Your task to perform on an android device: Search for "logitech g933" on target, select the first entry, add it to the cart, then select checkout. Image 0: 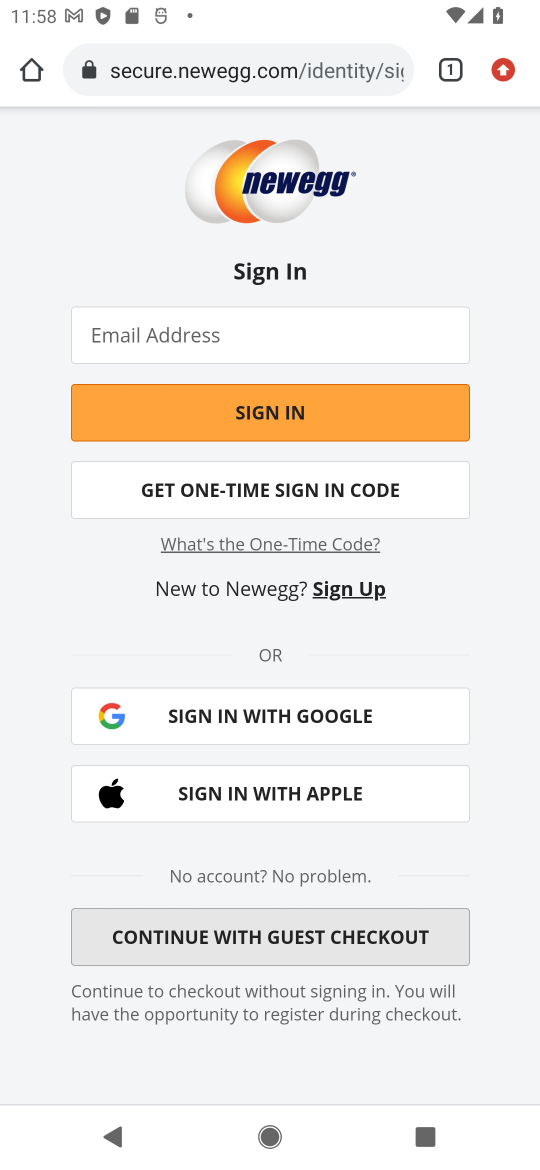
Step 0: click (177, 73)
Your task to perform on an android device: Search for "logitech g933" on target, select the first entry, add it to the cart, then select checkout. Image 1: 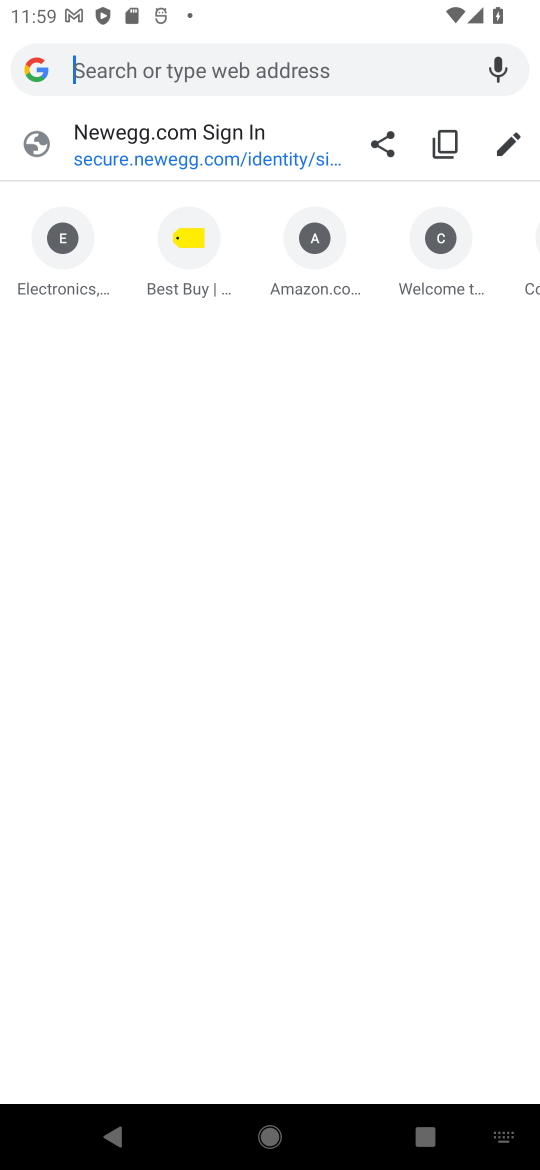
Step 1: type "target.com"
Your task to perform on an android device: Search for "logitech g933" on target, select the first entry, add it to the cart, then select checkout. Image 2: 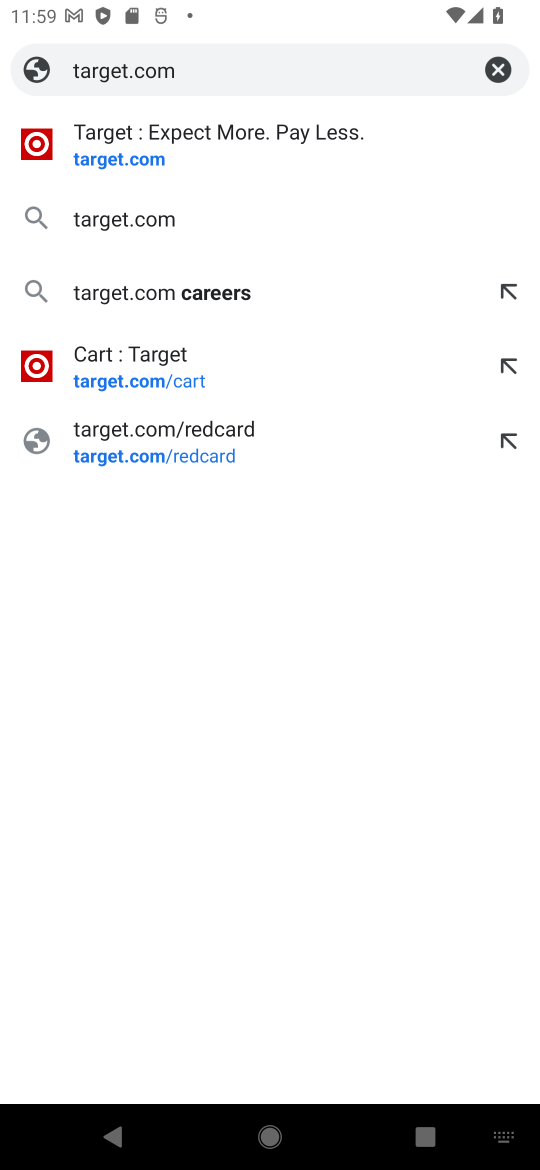
Step 2: click (87, 168)
Your task to perform on an android device: Search for "logitech g933" on target, select the first entry, add it to the cart, then select checkout. Image 3: 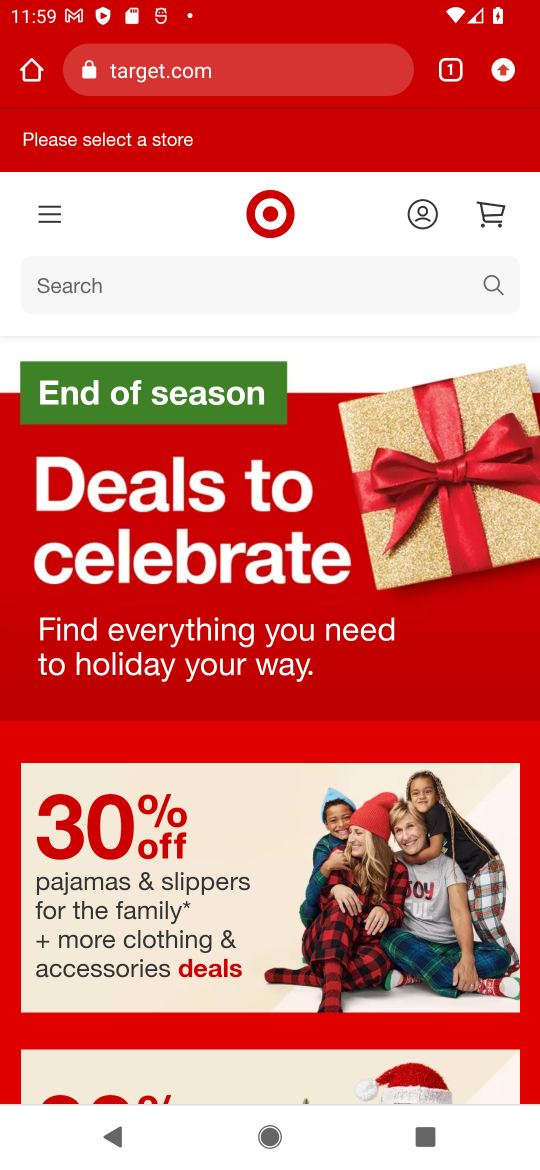
Step 3: click (52, 286)
Your task to perform on an android device: Search for "logitech g933" on target, select the first entry, add it to the cart, then select checkout. Image 4: 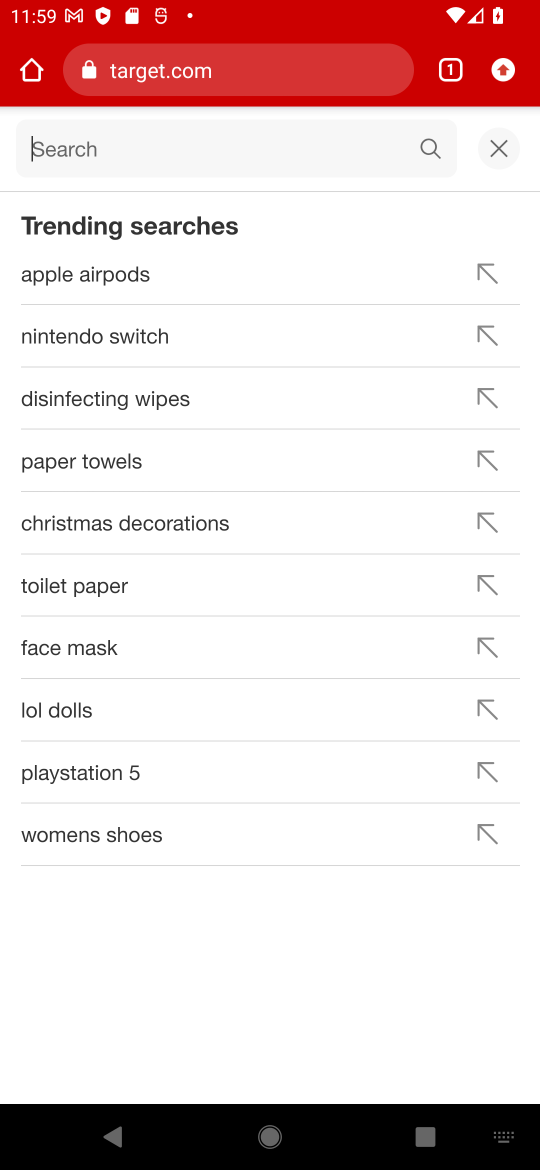
Step 4: click (68, 152)
Your task to perform on an android device: Search for "logitech g933" on target, select the first entry, add it to the cart, then select checkout. Image 5: 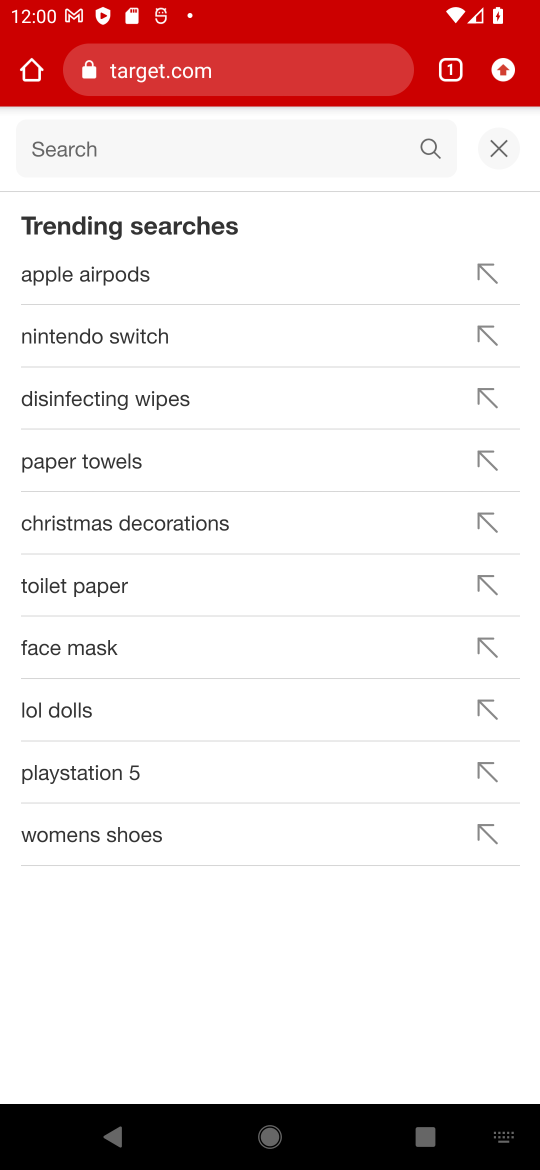
Step 5: type "logitech g933"
Your task to perform on an android device: Search for "logitech g933" on target, select the first entry, add it to the cart, then select checkout. Image 6: 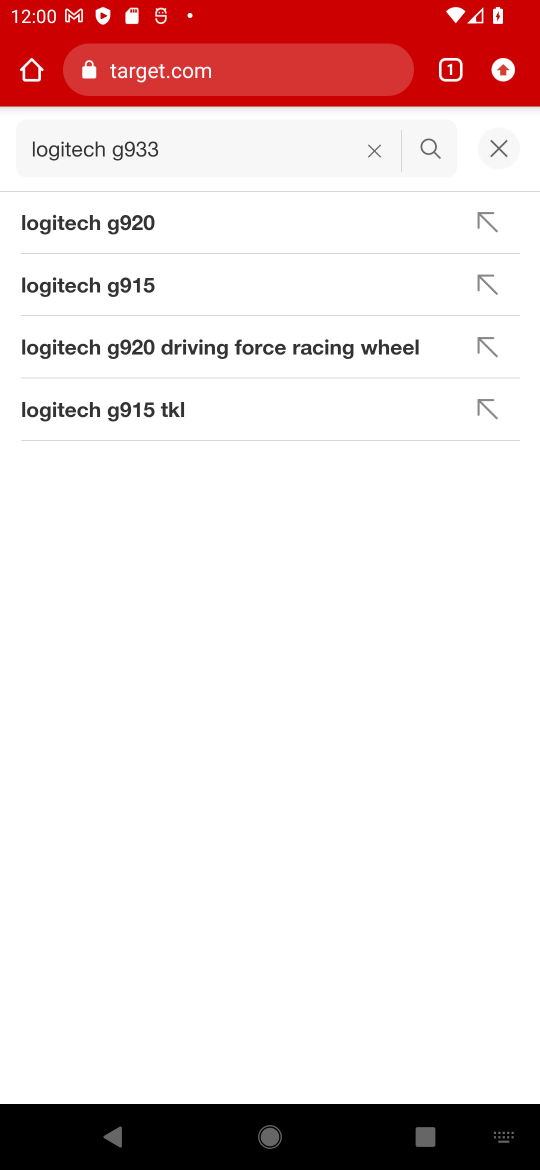
Step 6: click (435, 149)
Your task to perform on an android device: Search for "logitech g933" on target, select the first entry, add it to the cart, then select checkout. Image 7: 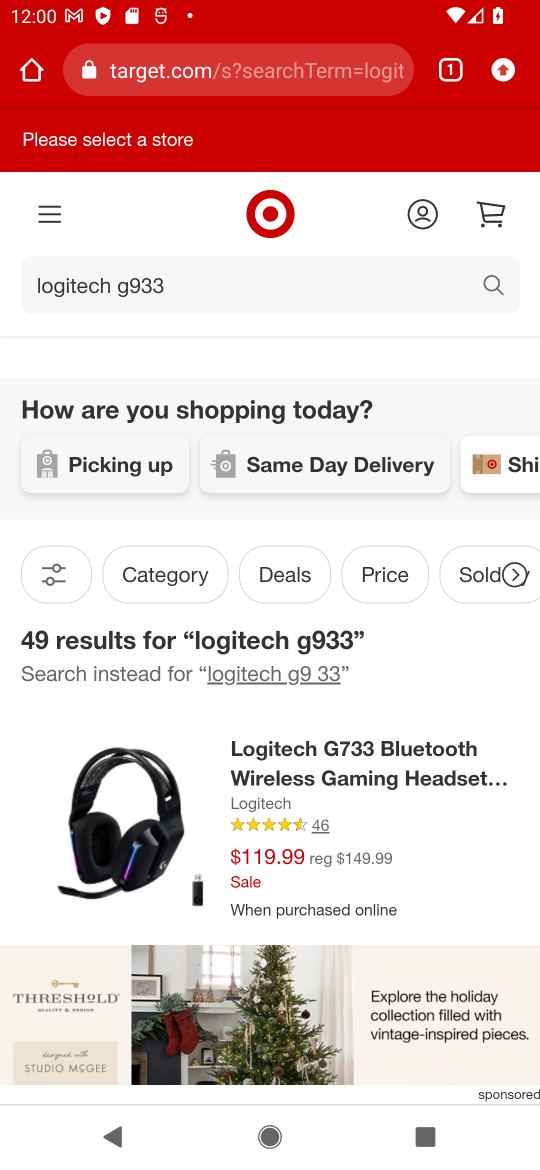
Step 7: task complete